Your task to perform on an android device: turn off improve location accuracy Image 0: 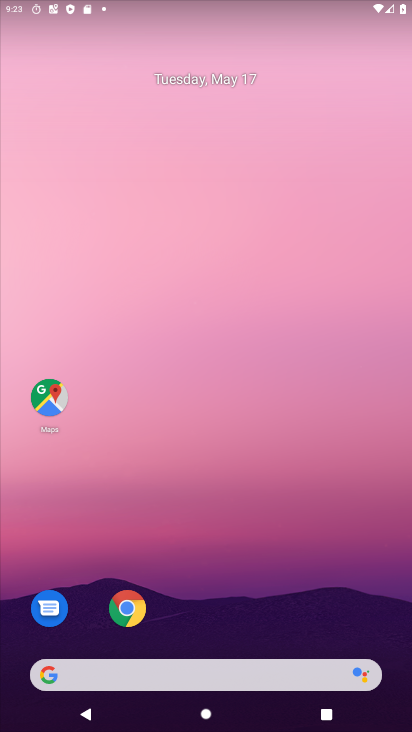
Step 0: drag from (358, 564) to (357, 82)
Your task to perform on an android device: turn off improve location accuracy Image 1: 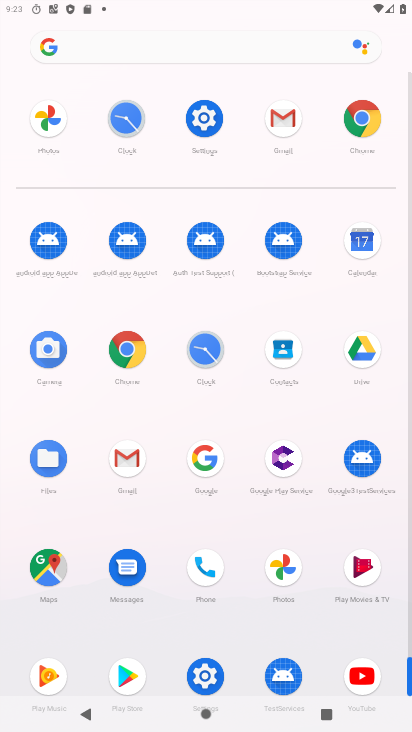
Step 1: click (208, 675)
Your task to perform on an android device: turn off improve location accuracy Image 2: 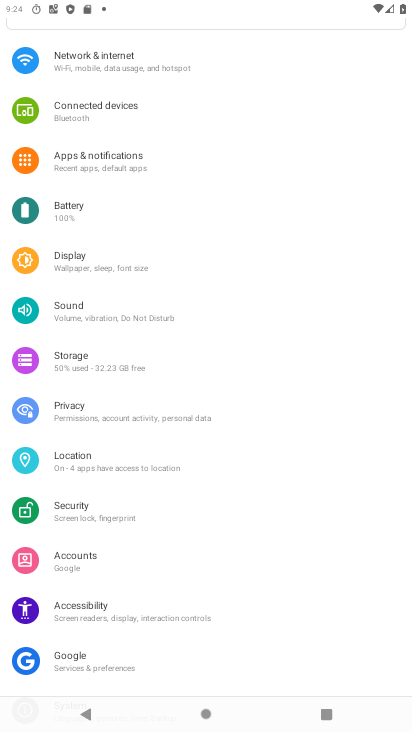
Step 2: click (92, 452)
Your task to perform on an android device: turn off improve location accuracy Image 3: 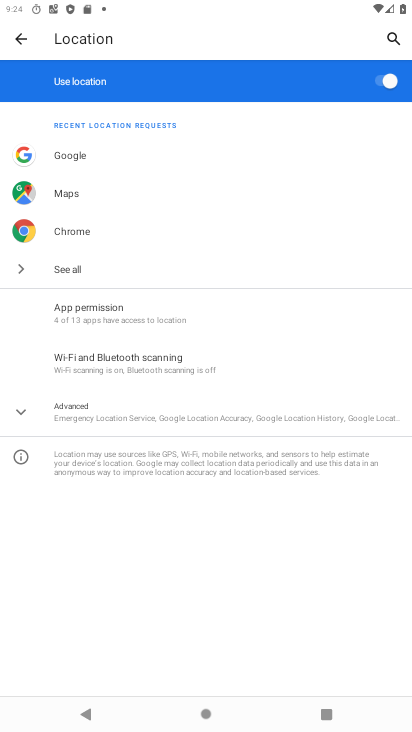
Step 3: click (127, 401)
Your task to perform on an android device: turn off improve location accuracy Image 4: 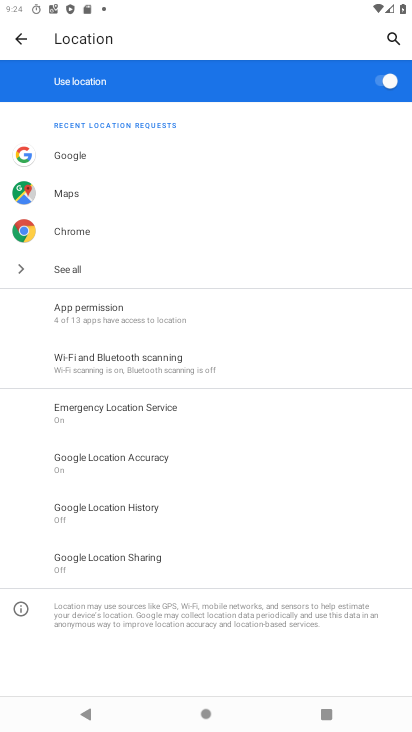
Step 4: click (152, 460)
Your task to perform on an android device: turn off improve location accuracy Image 5: 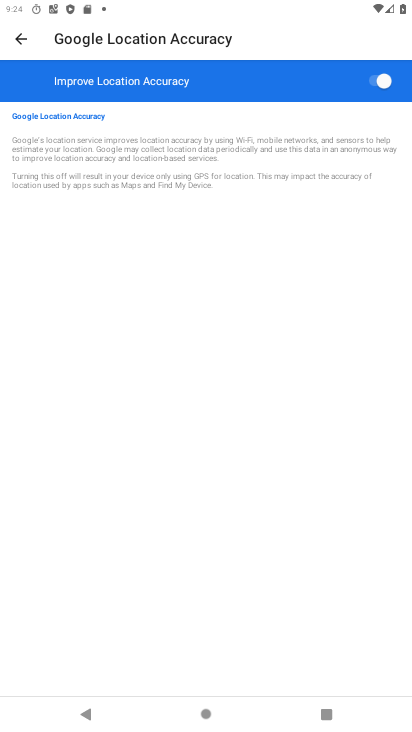
Step 5: click (379, 79)
Your task to perform on an android device: turn off improve location accuracy Image 6: 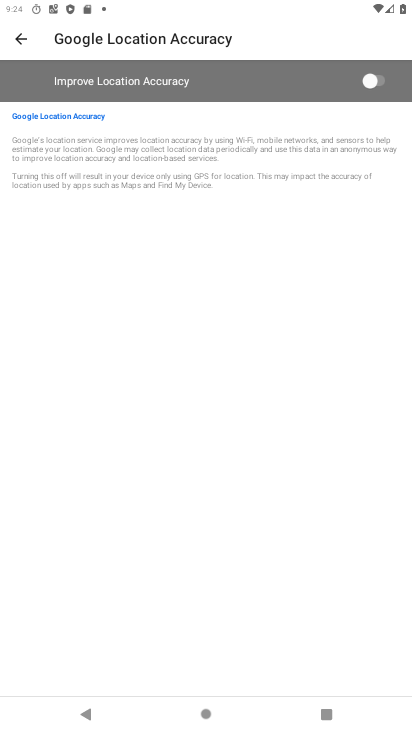
Step 6: task complete